Your task to perform on an android device: Open Chrome and go to the settings page Image 0: 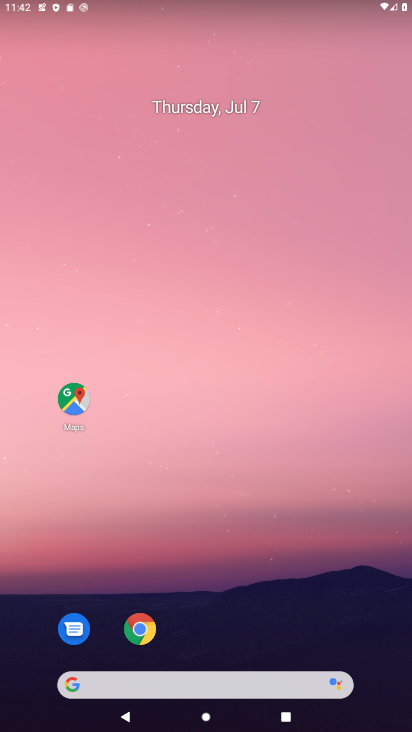
Step 0: click (141, 630)
Your task to perform on an android device: Open Chrome and go to the settings page Image 1: 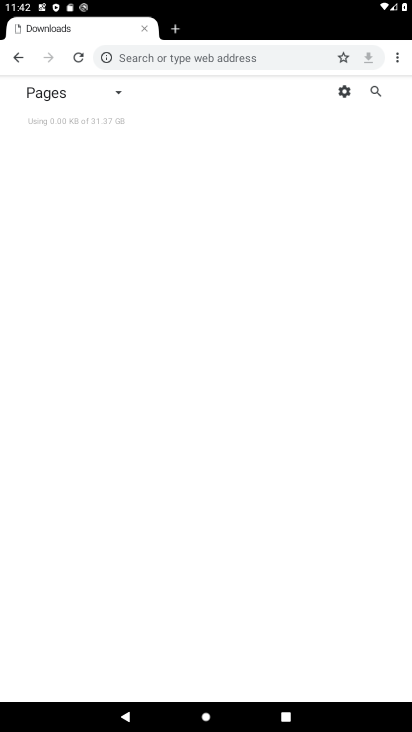
Step 1: click (395, 60)
Your task to perform on an android device: Open Chrome and go to the settings page Image 2: 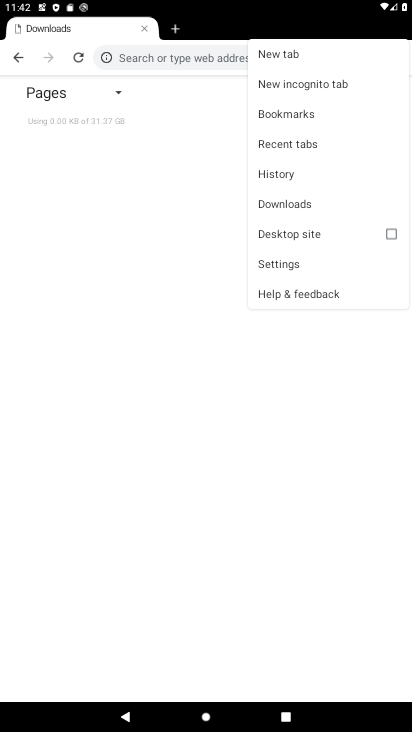
Step 2: click (288, 266)
Your task to perform on an android device: Open Chrome and go to the settings page Image 3: 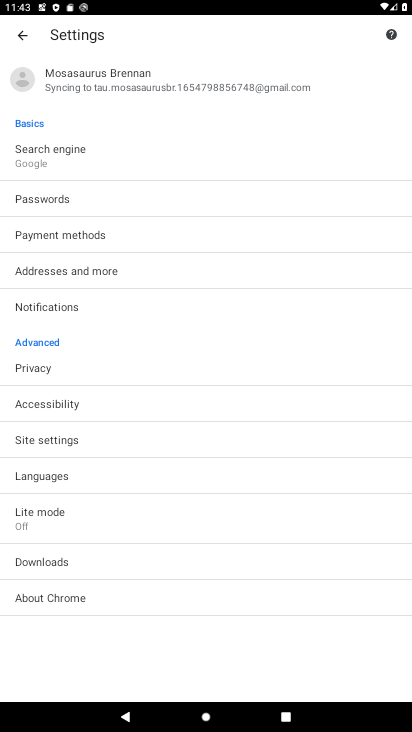
Step 3: task complete